Your task to perform on an android device: Open calendar and show me the third week of next month Image 0: 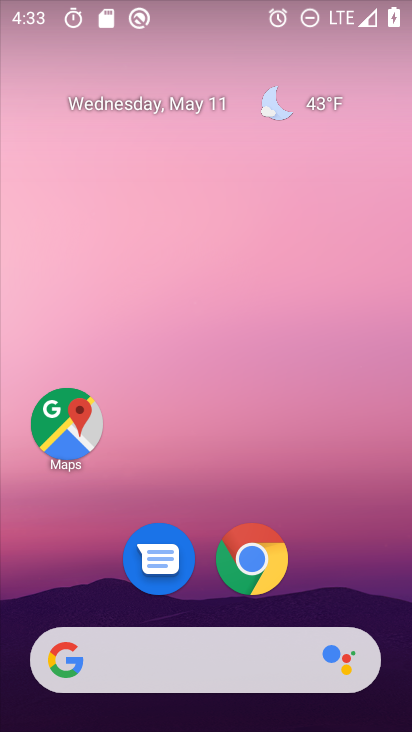
Step 0: click (162, 100)
Your task to perform on an android device: Open calendar and show me the third week of next month Image 1: 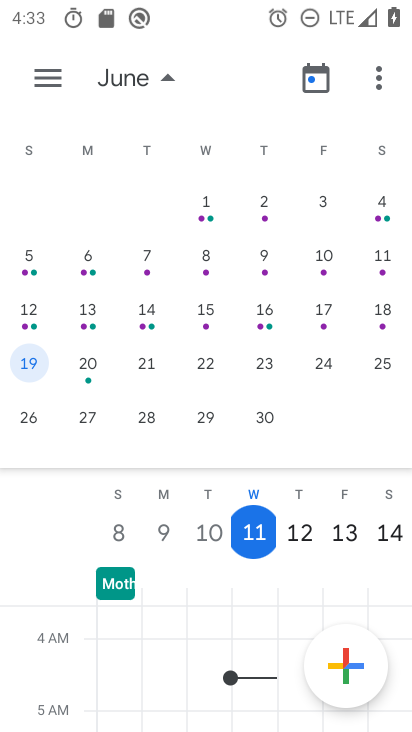
Step 1: click (34, 315)
Your task to perform on an android device: Open calendar and show me the third week of next month Image 2: 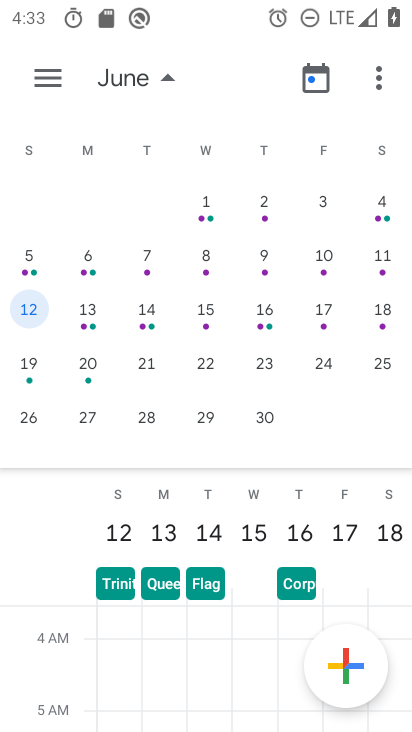
Step 2: task complete